Your task to perform on an android device: Do I have any events tomorrow? Image 0: 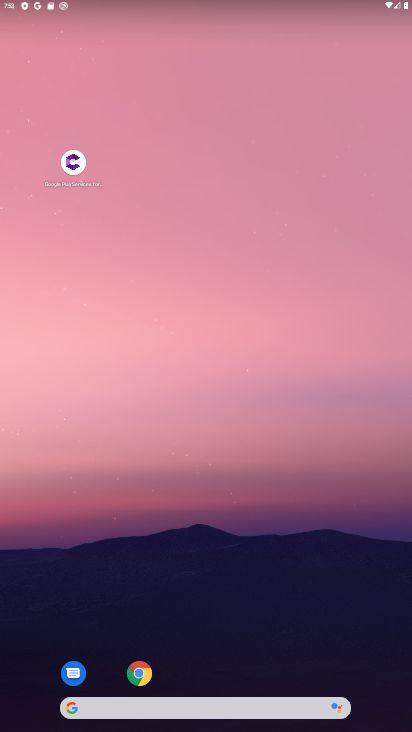
Step 0: drag from (205, 674) to (265, 224)
Your task to perform on an android device: Do I have any events tomorrow? Image 1: 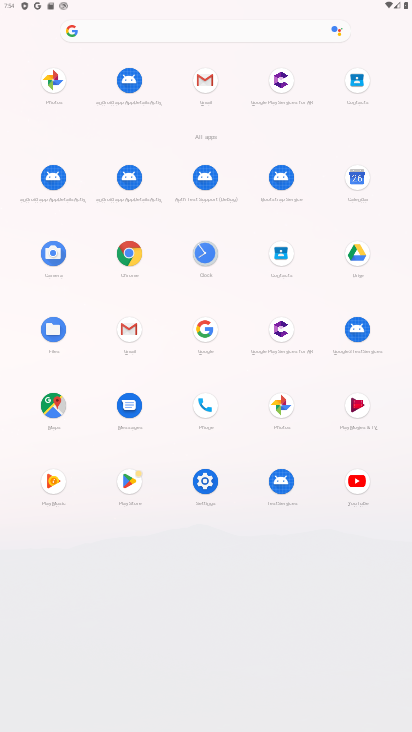
Step 1: click (353, 184)
Your task to perform on an android device: Do I have any events tomorrow? Image 2: 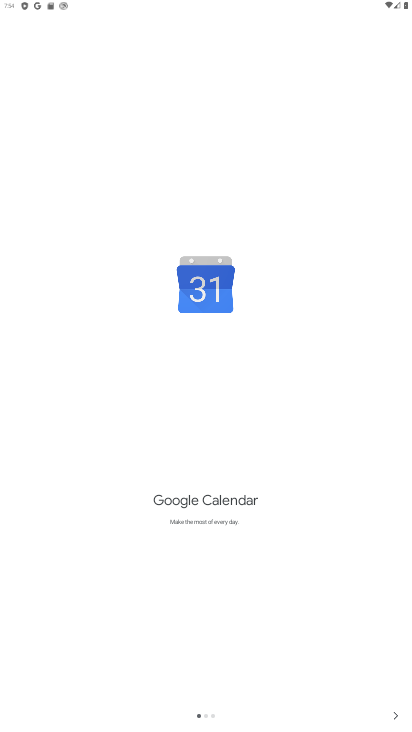
Step 2: click (393, 710)
Your task to perform on an android device: Do I have any events tomorrow? Image 3: 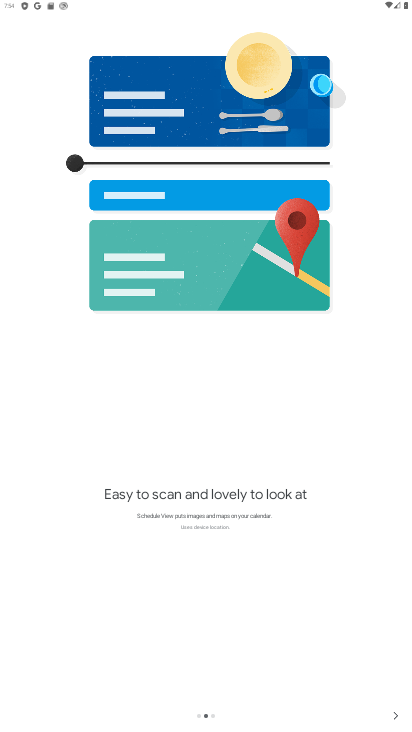
Step 3: click (395, 709)
Your task to perform on an android device: Do I have any events tomorrow? Image 4: 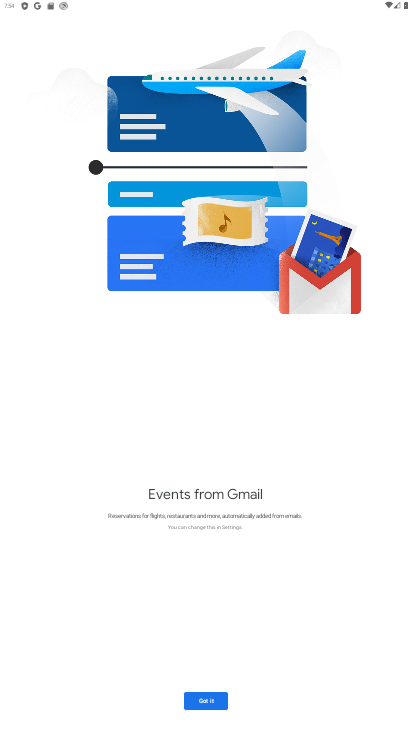
Step 4: click (194, 704)
Your task to perform on an android device: Do I have any events tomorrow? Image 5: 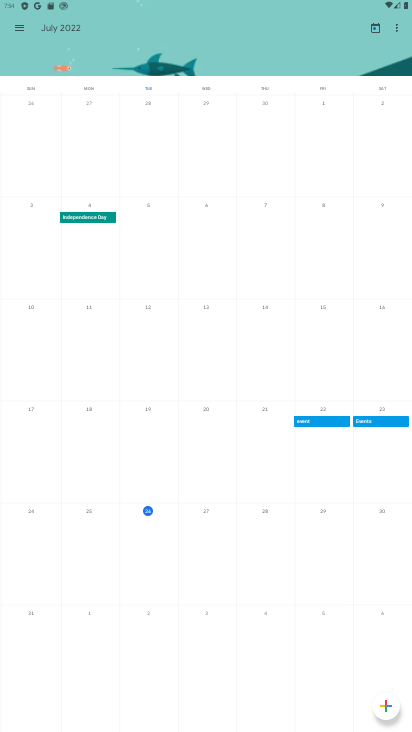
Step 5: click (15, 17)
Your task to perform on an android device: Do I have any events tomorrow? Image 6: 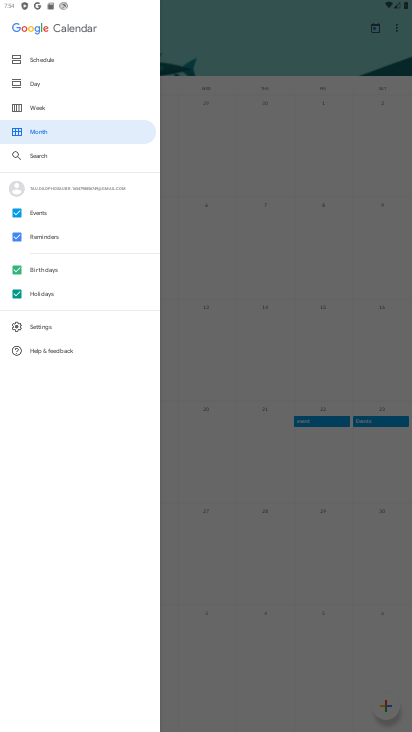
Step 6: click (72, 61)
Your task to perform on an android device: Do I have any events tomorrow? Image 7: 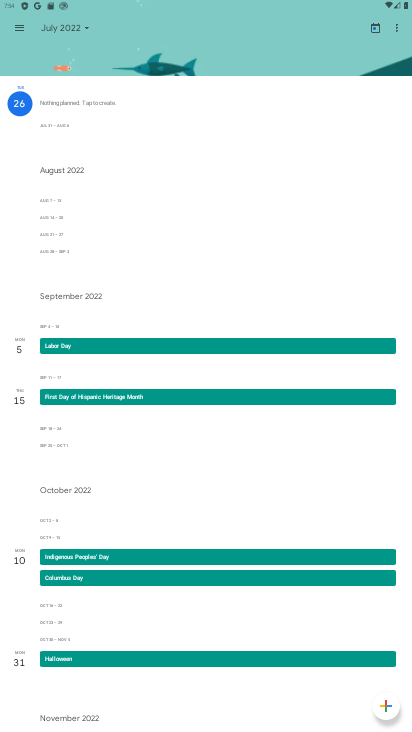
Step 7: task complete